Your task to perform on an android device: uninstall "ColorNote Notepad Notes" Image 0: 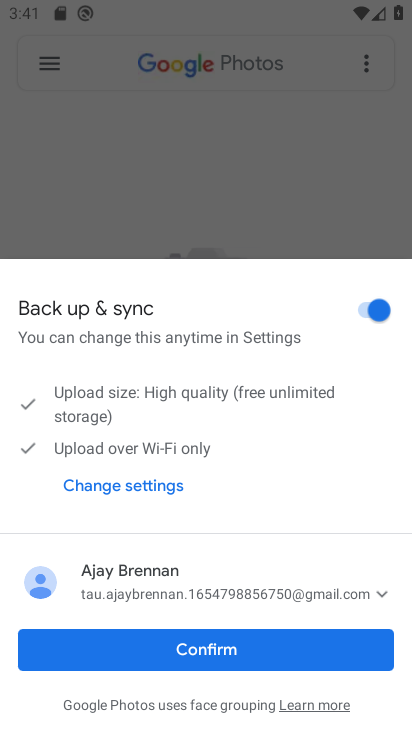
Step 0: press enter
Your task to perform on an android device: uninstall "ColorNote Notepad Notes" Image 1: 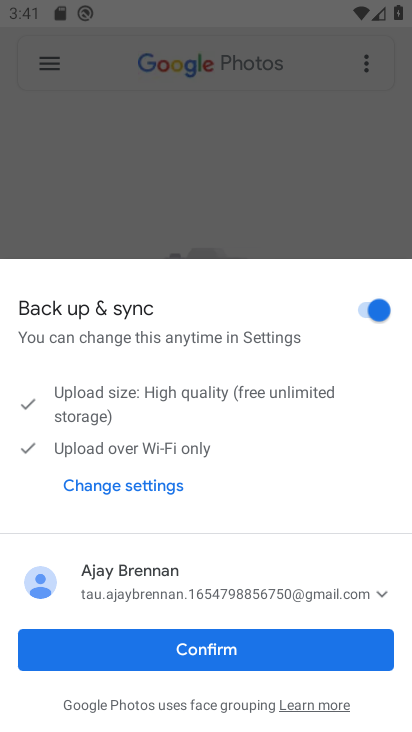
Step 1: press home button
Your task to perform on an android device: uninstall "ColorNote Notepad Notes" Image 2: 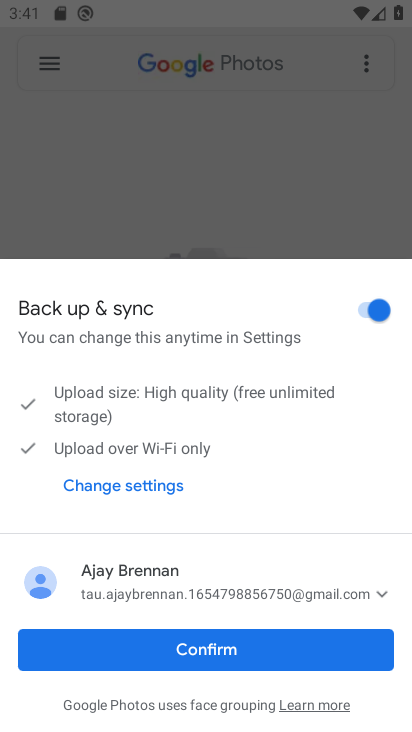
Step 2: press home button
Your task to perform on an android device: uninstall "ColorNote Notepad Notes" Image 3: 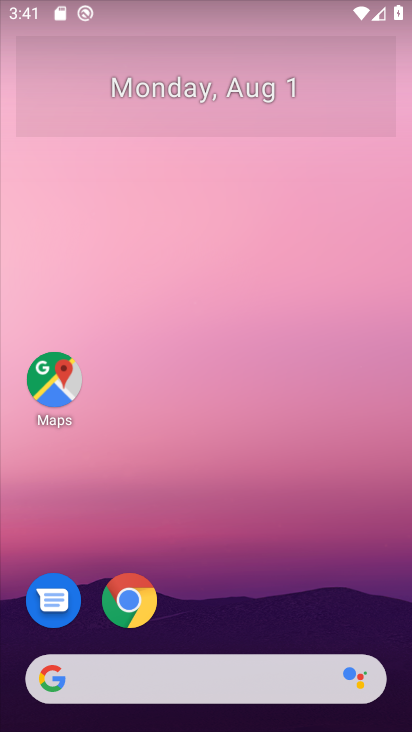
Step 3: drag from (316, 554) to (232, 0)
Your task to perform on an android device: uninstall "ColorNote Notepad Notes" Image 4: 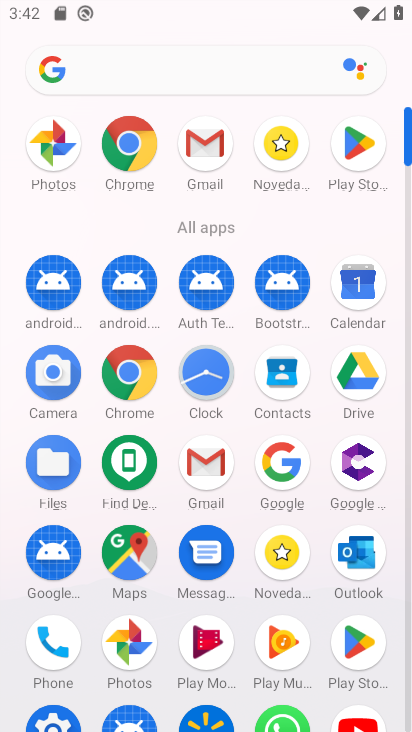
Step 4: click (380, 156)
Your task to perform on an android device: uninstall "ColorNote Notepad Notes" Image 5: 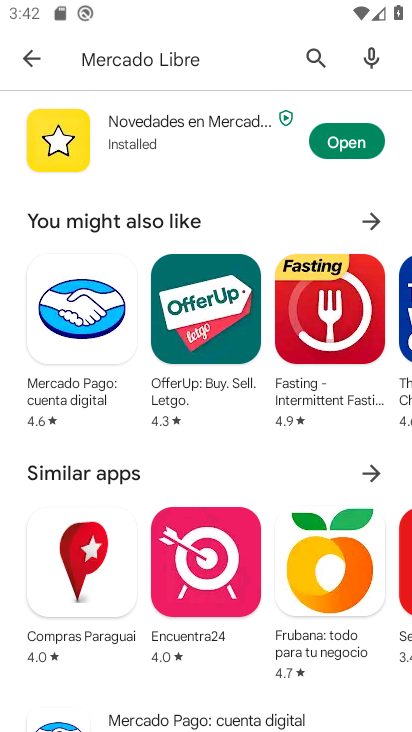
Step 5: click (248, 49)
Your task to perform on an android device: uninstall "ColorNote Notepad Notes" Image 6: 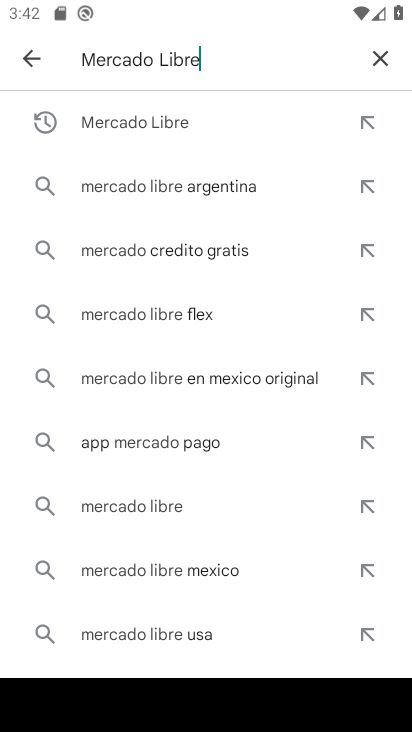
Step 6: click (379, 59)
Your task to perform on an android device: uninstall "ColorNote Notepad Notes" Image 7: 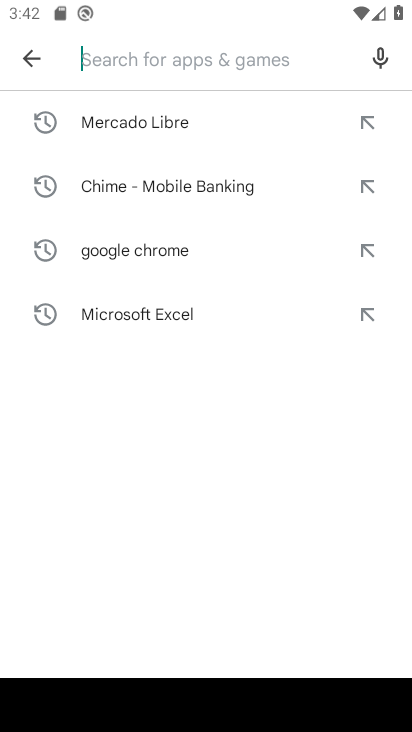
Step 7: type "ColorNote Notepad"
Your task to perform on an android device: uninstall "ColorNote Notepad Notes" Image 8: 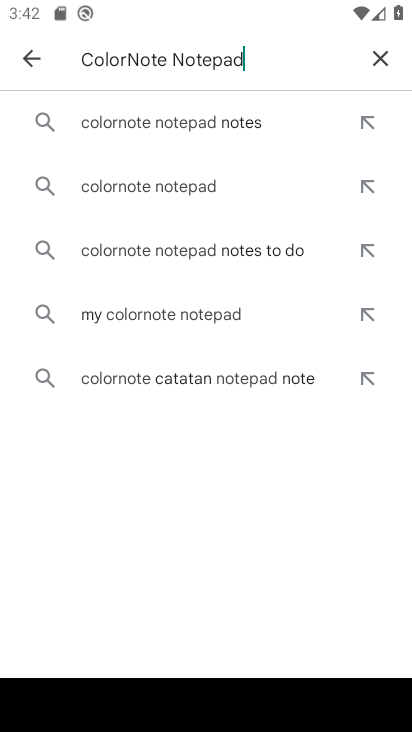
Step 8: type " Notes"
Your task to perform on an android device: uninstall "ColorNote Notepad Notes" Image 9: 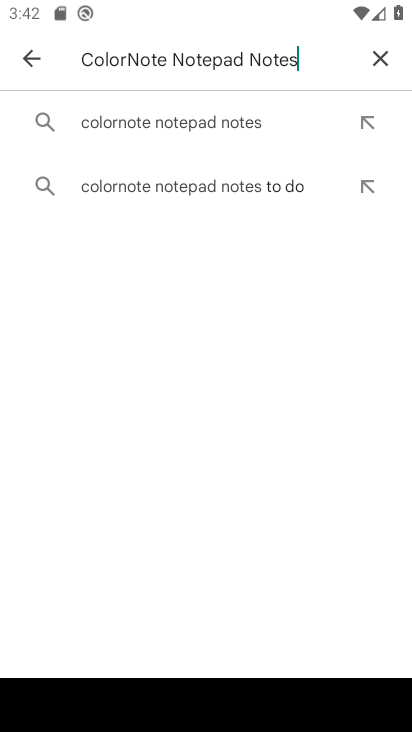
Step 9: press enter
Your task to perform on an android device: uninstall "ColorNote Notepad Notes" Image 10: 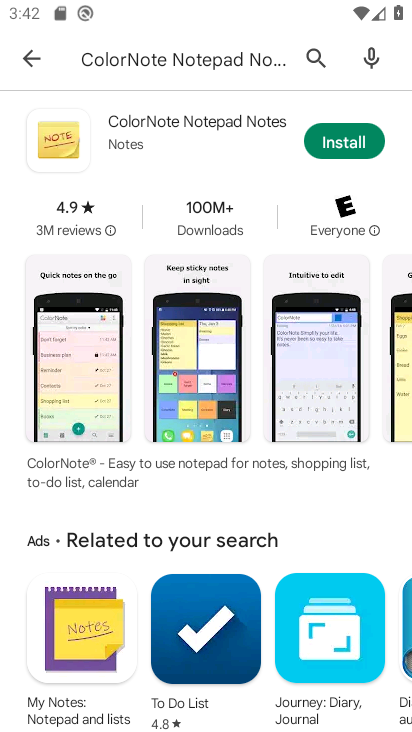
Step 10: click (123, 155)
Your task to perform on an android device: uninstall "ColorNote Notepad Notes" Image 11: 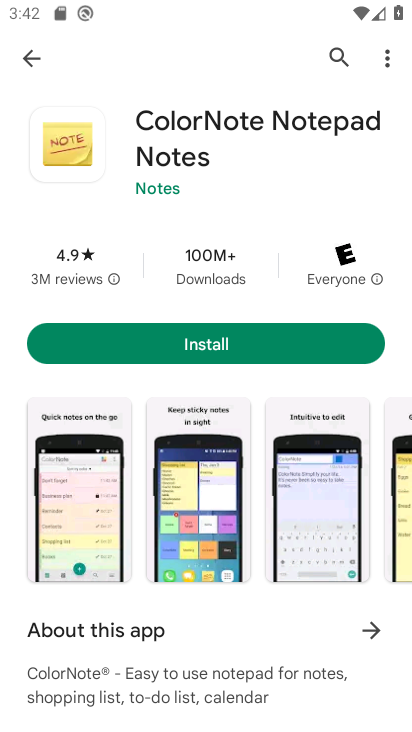
Step 11: task complete